Your task to perform on an android device: turn notification dots off Image 0: 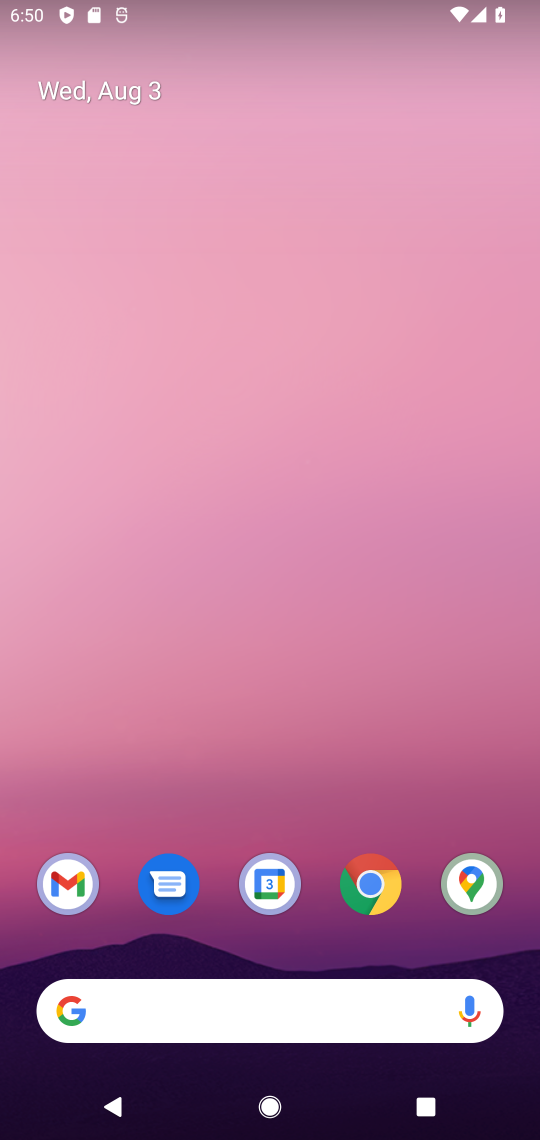
Step 0: drag from (346, 690) to (396, 169)
Your task to perform on an android device: turn notification dots off Image 1: 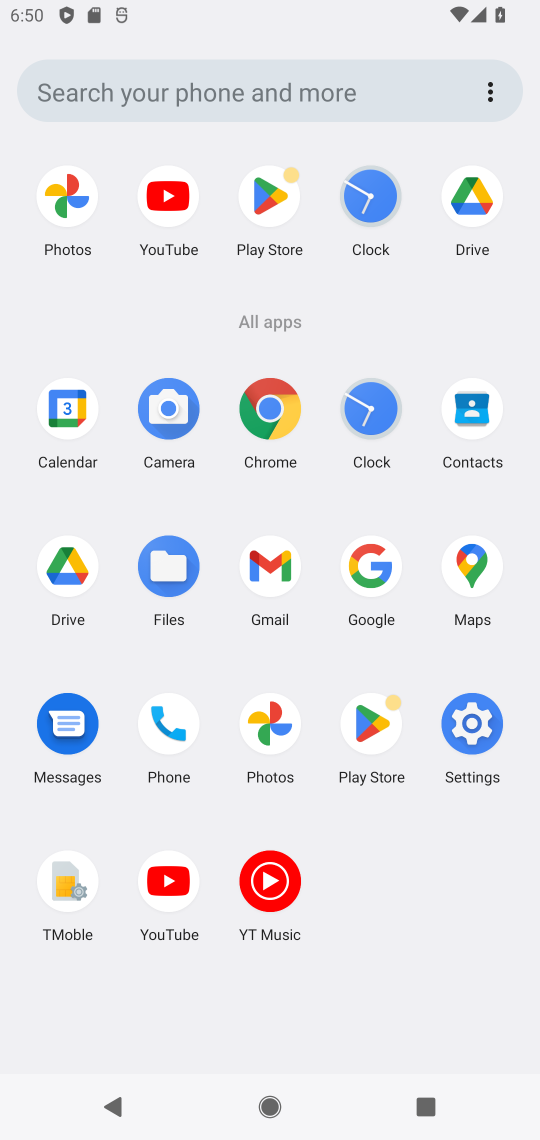
Step 1: click (462, 735)
Your task to perform on an android device: turn notification dots off Image 2: 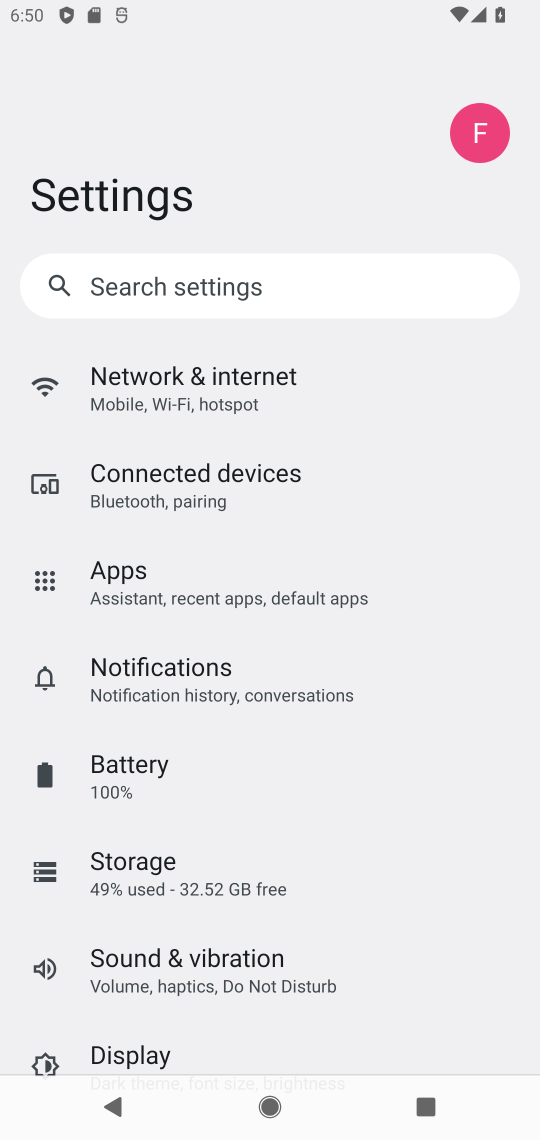
Step 2: task complete